Your task to perform on an android device: change timer sound Image 0: 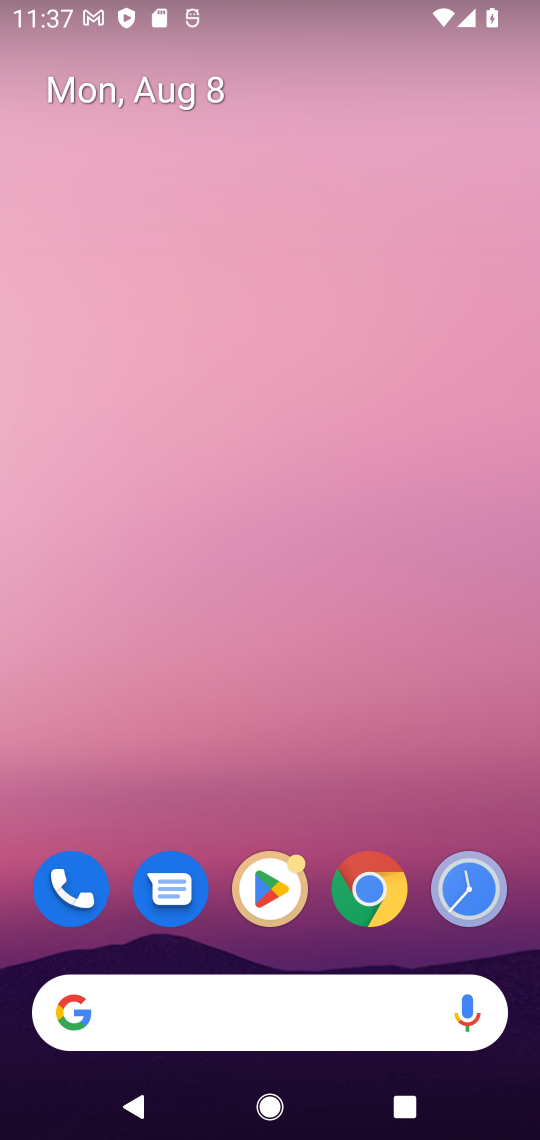
Step 0: drag from (386, 831) to (337, 228)
Your task to perform on an android device: change timer sound Image 1: 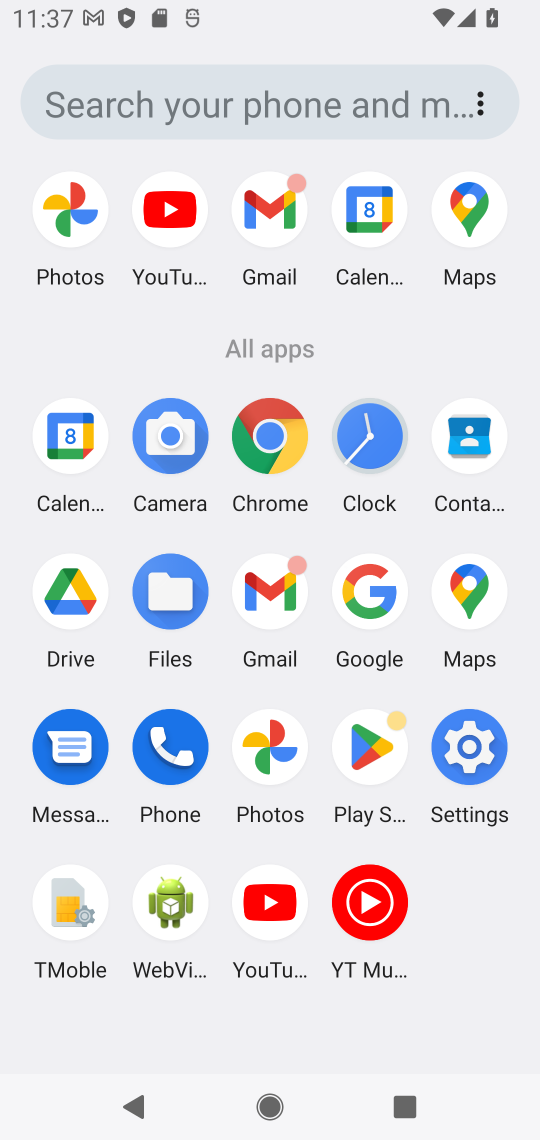
Step 1: click (363, 455)
Your task to perform on an android device: change timer sound Image 2: 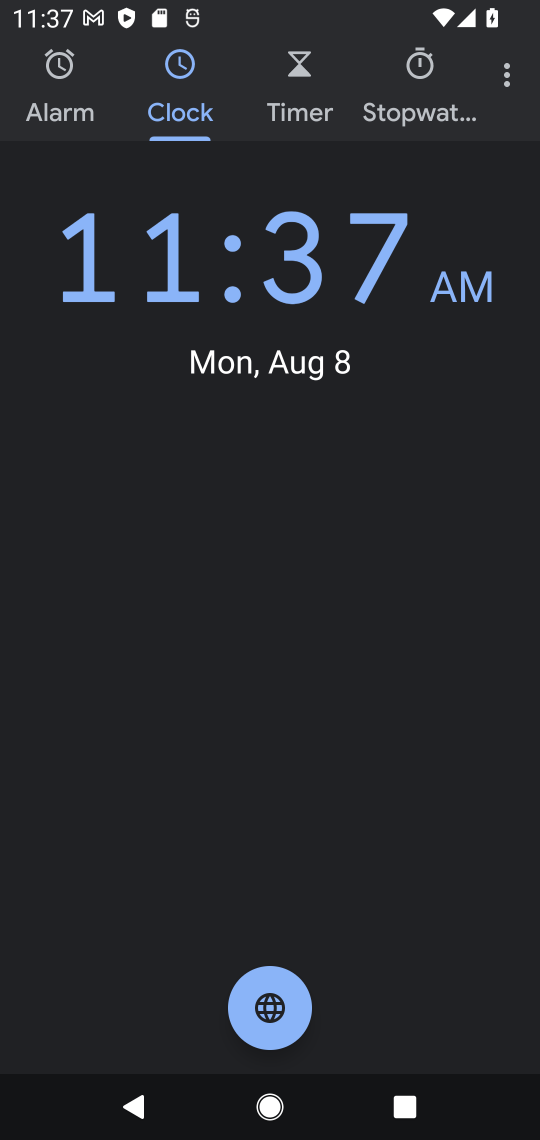
Step 2: click (513, 87)
Your task to perform on an android device: change timer sound Image 3: 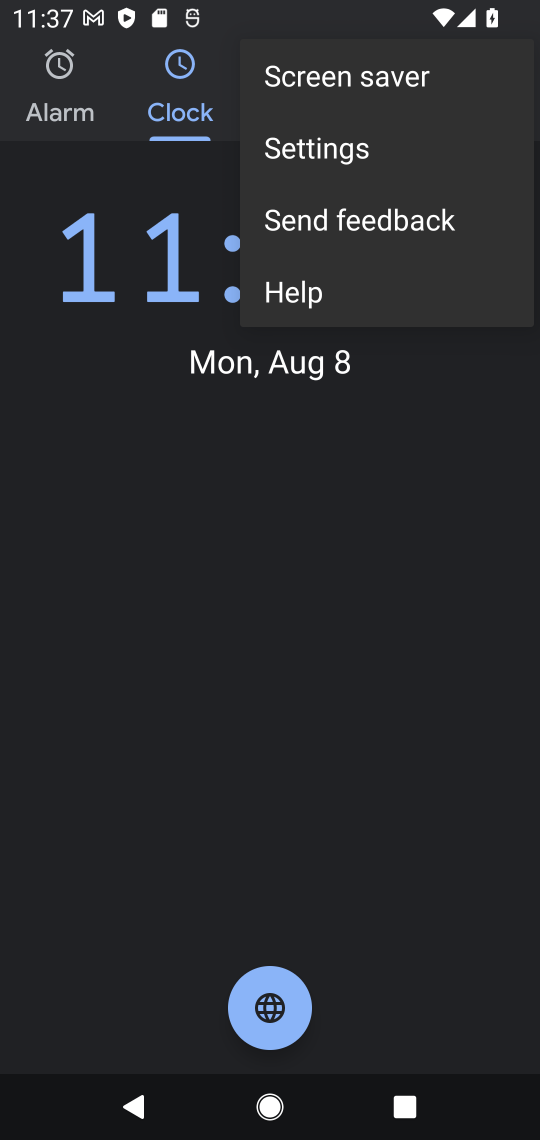
Step 3: click (358, 147)
Your task to perform on an android device: change timer sound Image 4: 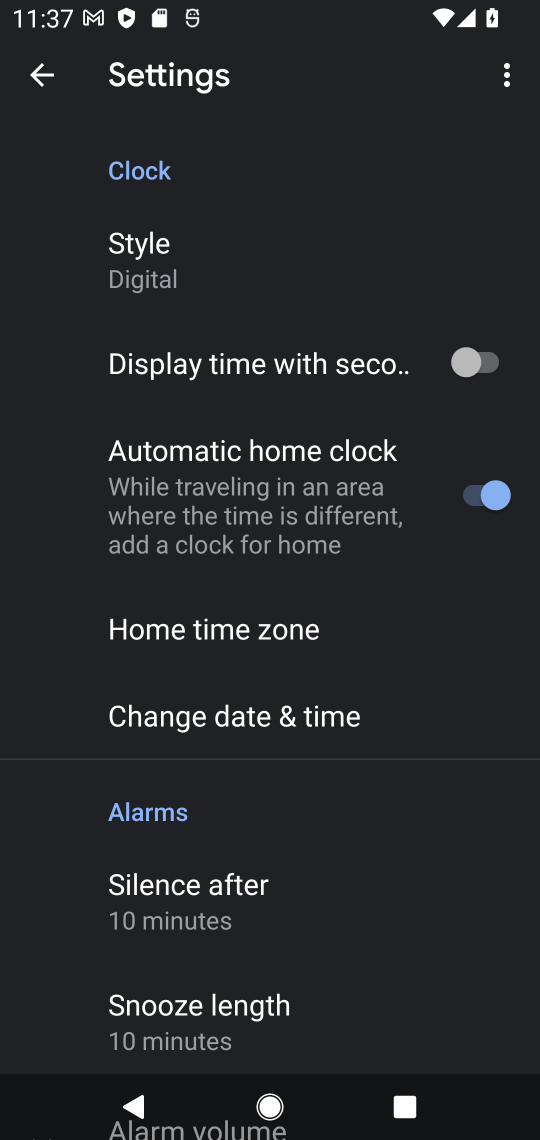
Step 4: drag from (327, 952) to (310, 574)
Your task to perform on an android device: change timer sound Image 5: 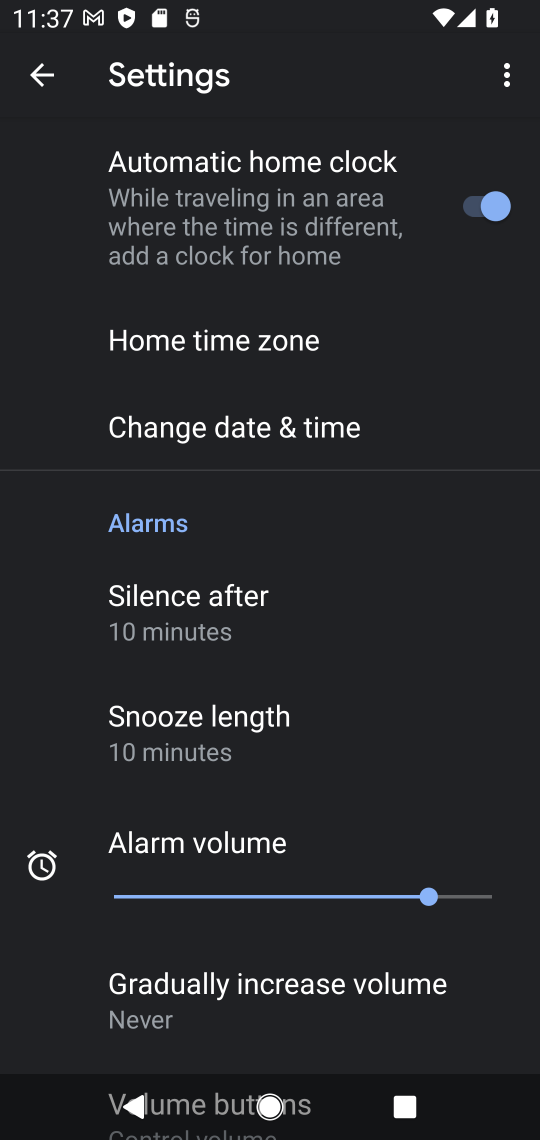
Step 5: drag from (363, 899) to (318, 345)
Your task to perform on an android device: change timer sound Image 6: 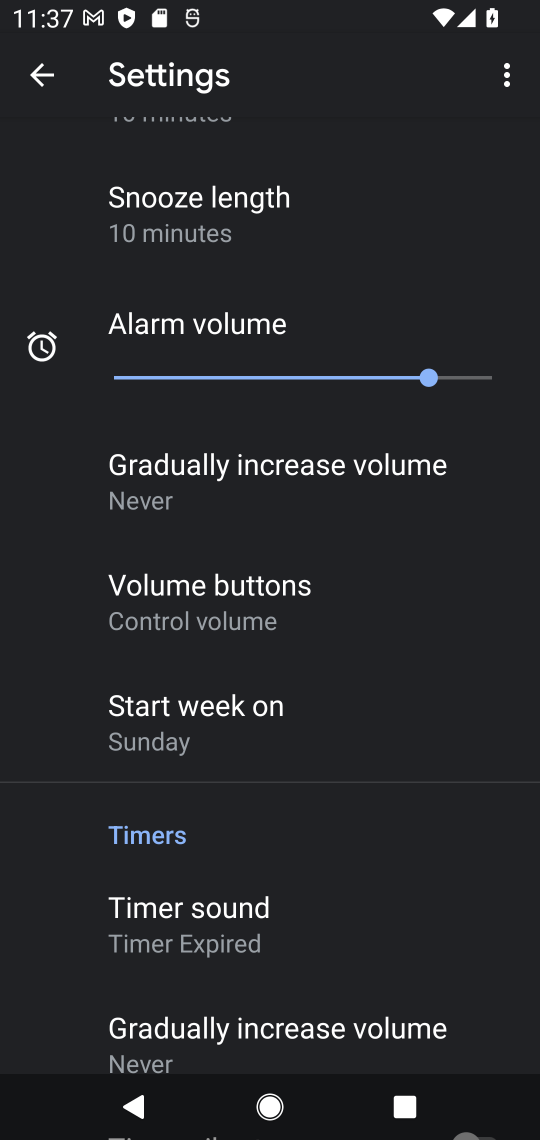
Step 6: click (215, 915)
Your task to perform on an android device: change timer sound Image 7: 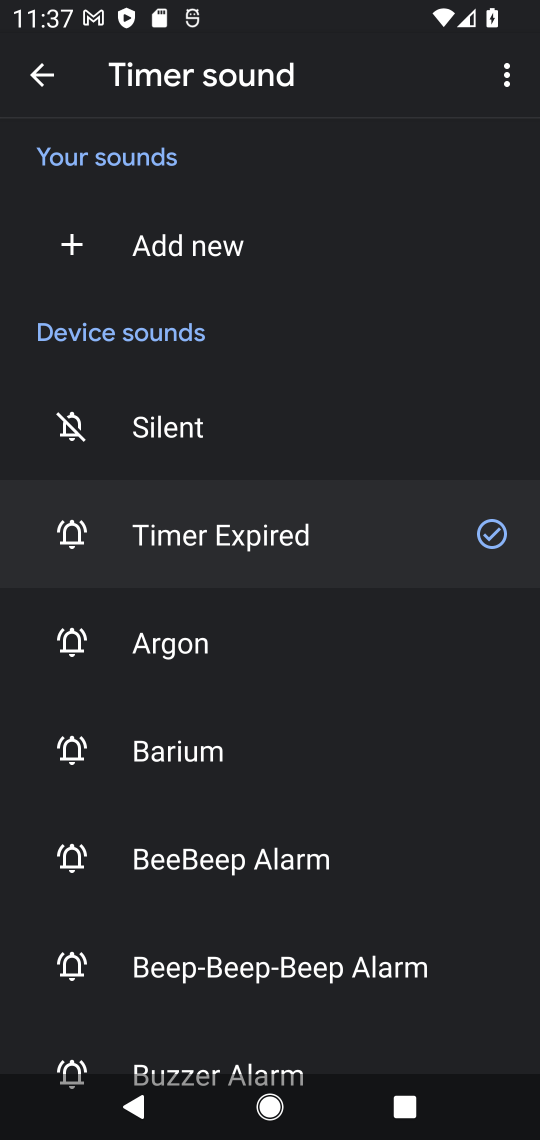
Step 7: click (197, 740)
Your task to perform on an android device: change timer sound Image 8: 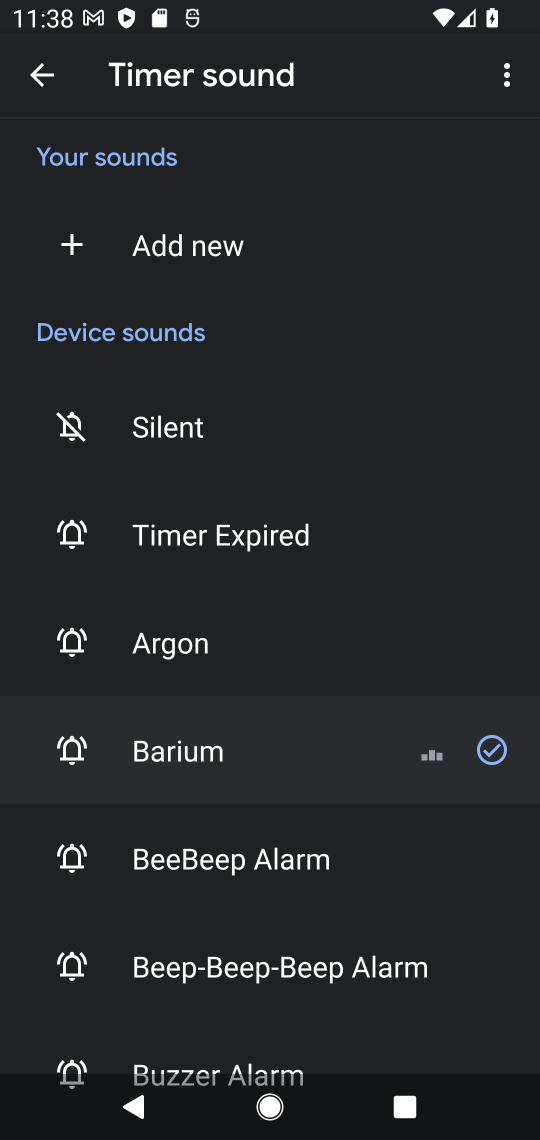
Step 8: task complete